Your task to perform on an android device: Open internet settings Image 0: 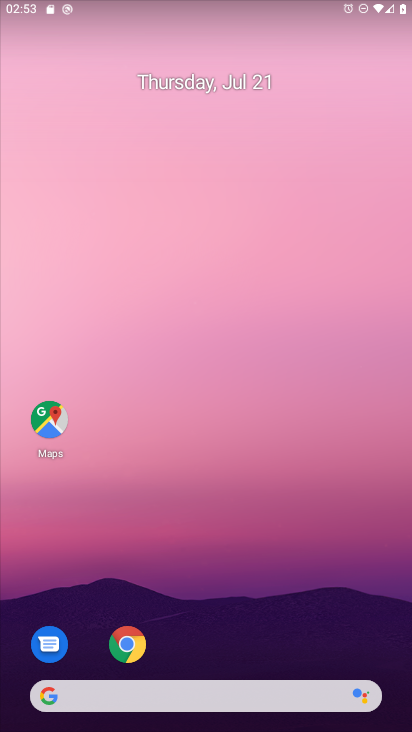
Step 0: drag from (162, 681) to (179, 262)
Your task to perform on an android device: Open internet settings Image 1: 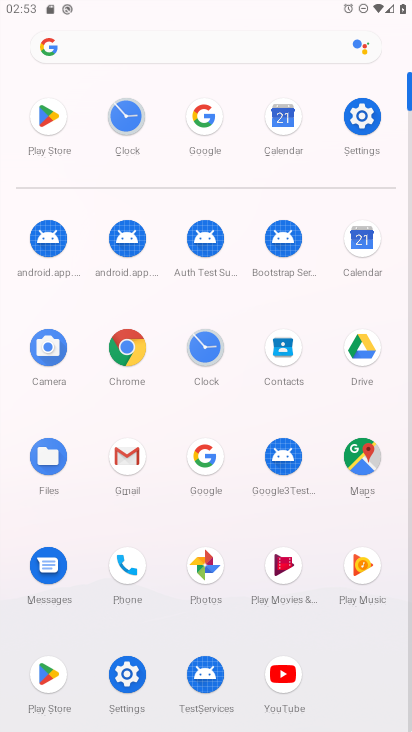
Step 1: click (354, 123)
Your task to perform on an android device: Open internet settings Image 2: 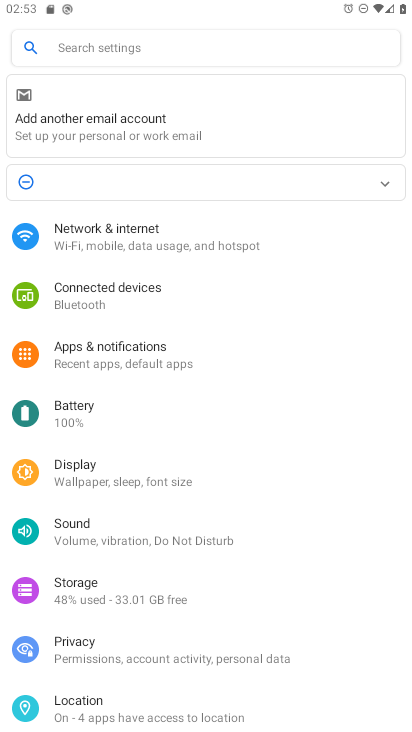
Step 2: click (134, 236)
Your task to perform on an android device: Open internet settings Image 3: 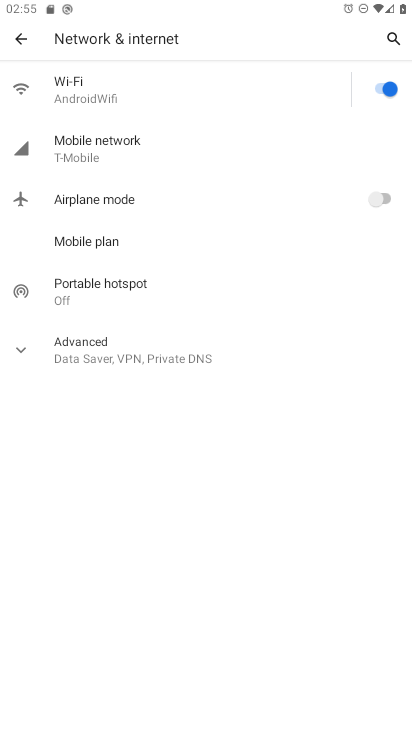
Step 3: click (100, 348)
Your task to perform on an android device: Open internet settings Image 4: 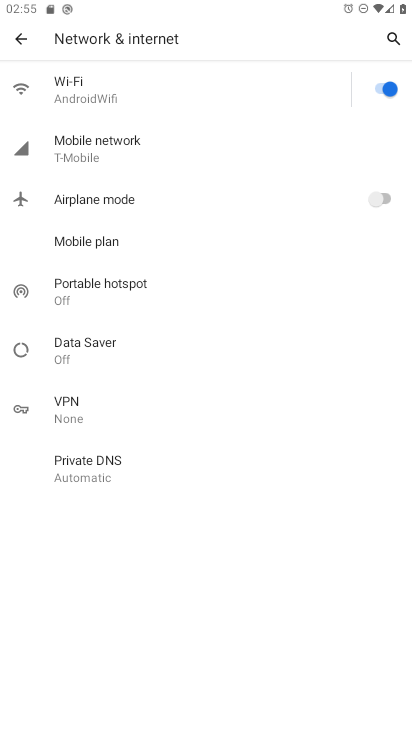
Step 4: task complete